Your task to perform on an android device: check storage Image 0: 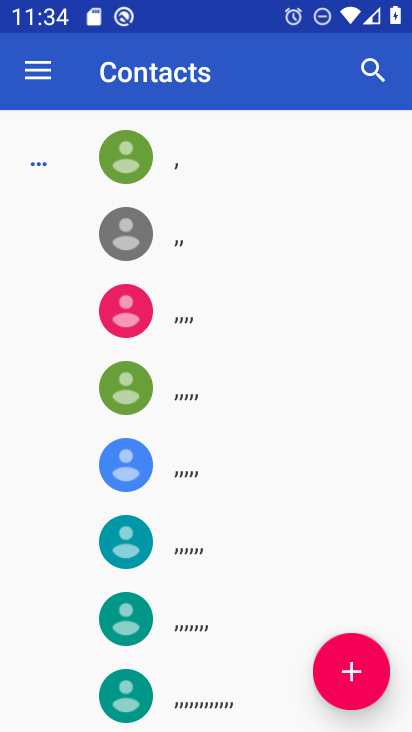
Step 0: press back button
Your task to perform on an android device: check storage Image 1: 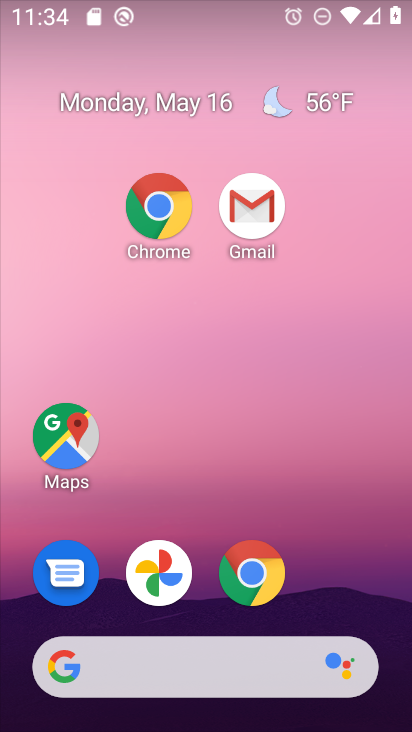
Step 1: drag from (322, 622) to (140, 24)
Your task to perform on an android device: check storage Image 2: 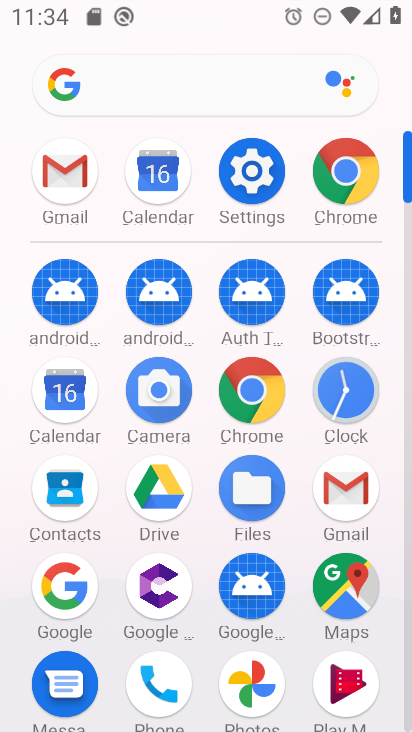
Step 2: click (253, 170)
Your task to perform on an android device: check storage Image 3: 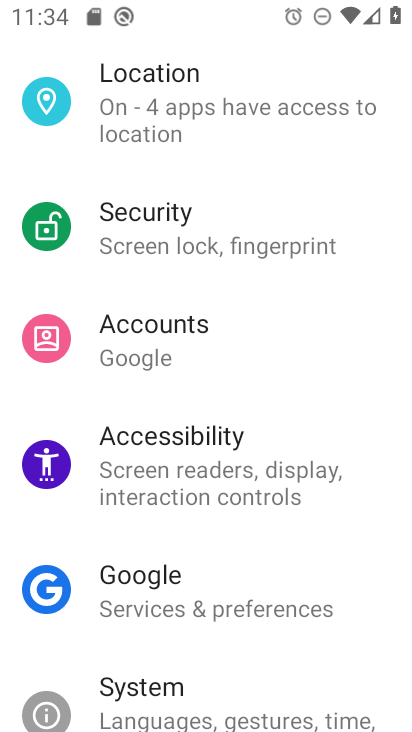
Step 3: drag from (181, 124) to (212, 561)
Your task to perform on an android device: check storage Image 4: 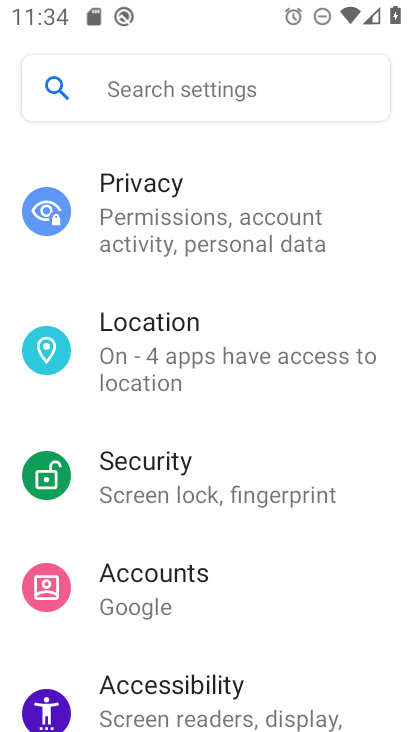
Step 4: drag from (180, 176) to (231, 568)
Your task to perform on an android device: check storage Image 5: 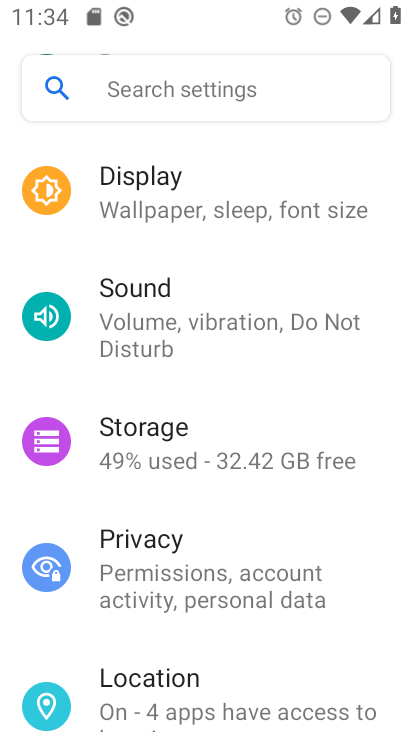
Step 5: click (143, 448)
Your task to perform on an android device: check storage Image 6: 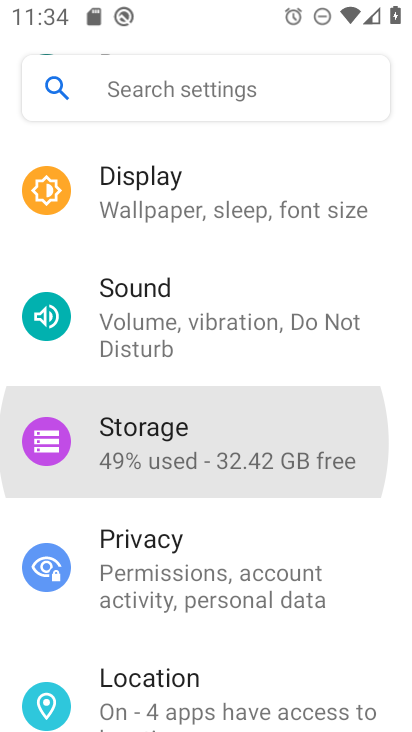
Step 6: click (143, 446)
Your task to perform on an android device: check storage Image 7: 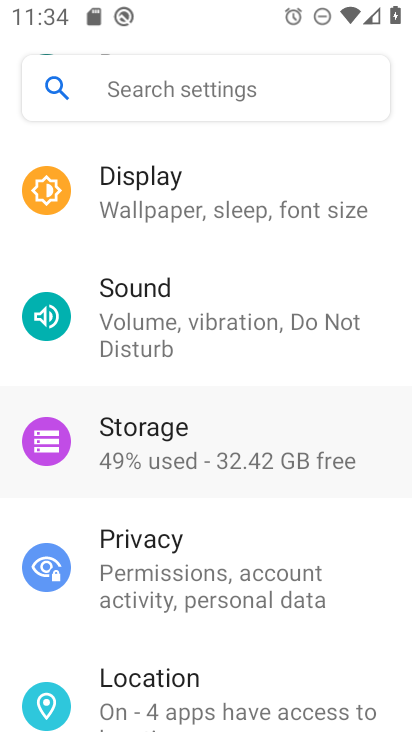
Step 7: click (146, 440)
Your task to perform on an android device: check storage Image 8: 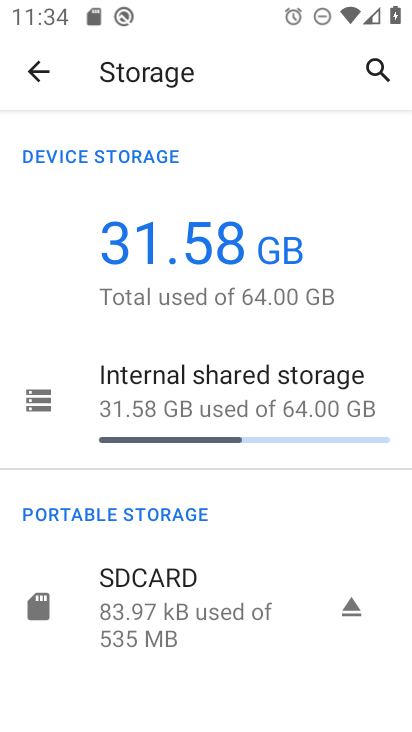
Step 8: task complete